Your task to perform on an android device: Open the SMS app Image 0: 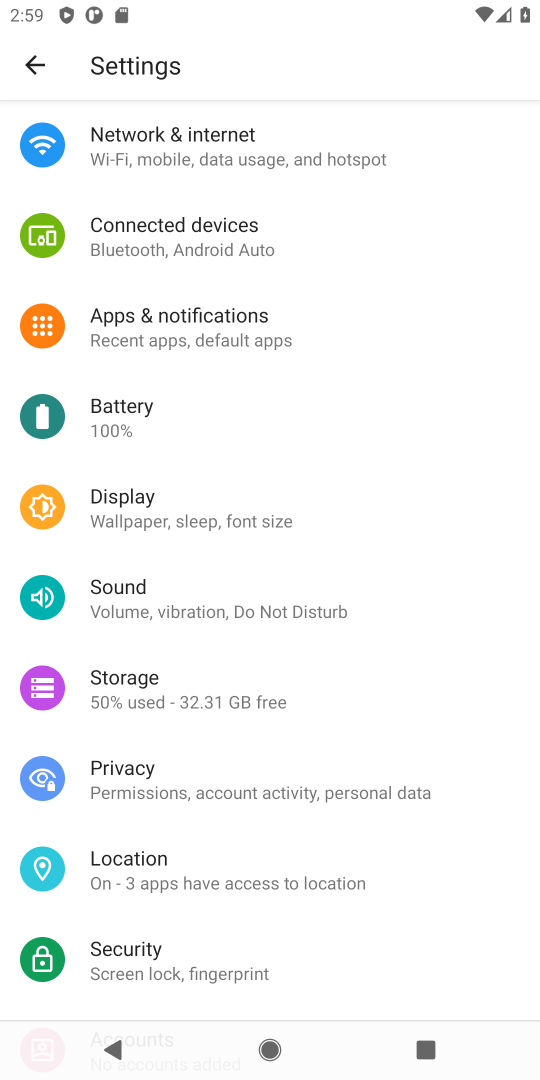
Step 0: press home button
Your task to perform on an android device: Open the SMS app Image 1: 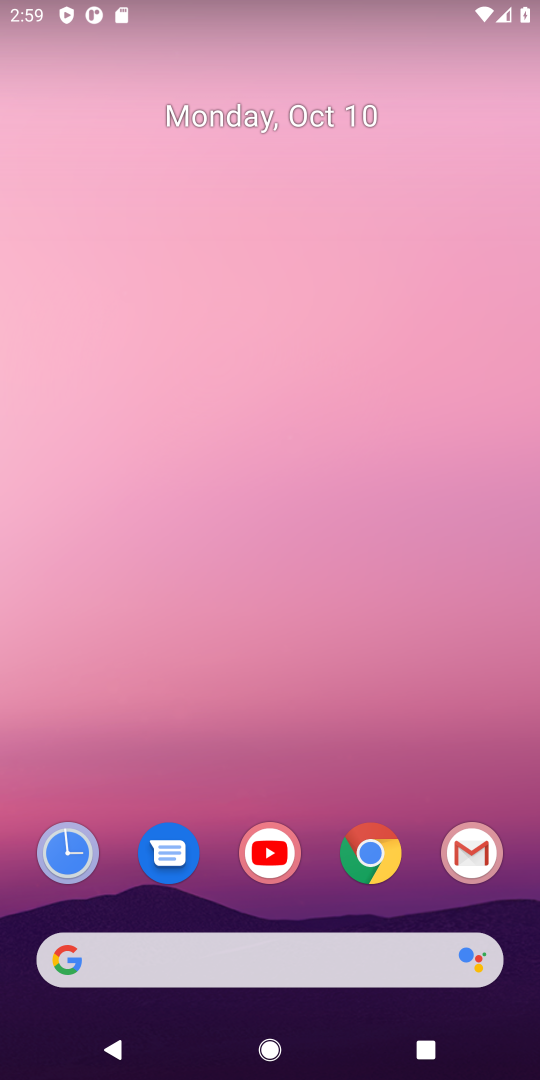
Step 1: click (370, 840)
Your task to perform on an android device: Open the SMS app Image 2: 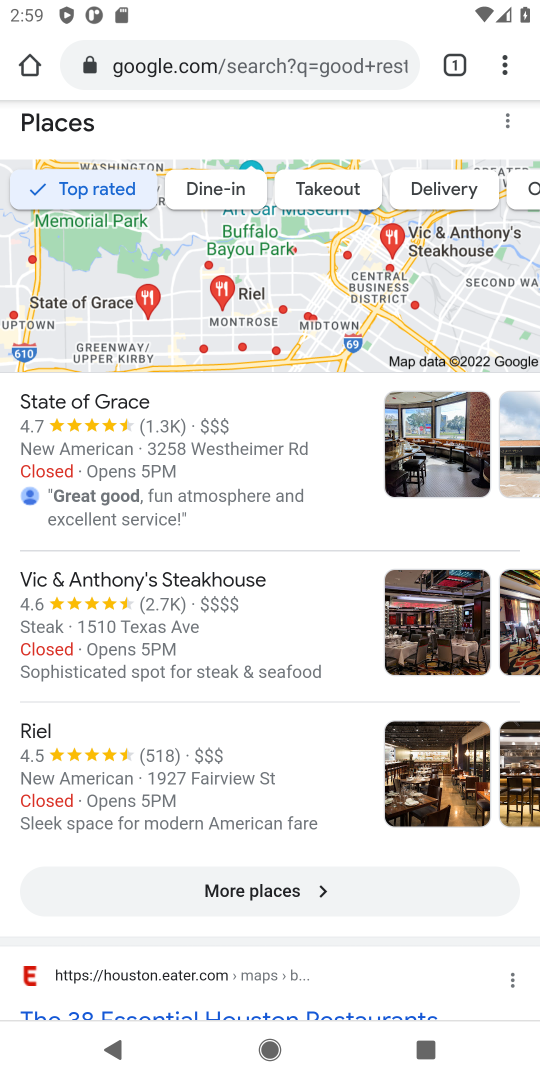
Step 2: press home button
Your task to perform on an android device: Open the SMS app Image 3: 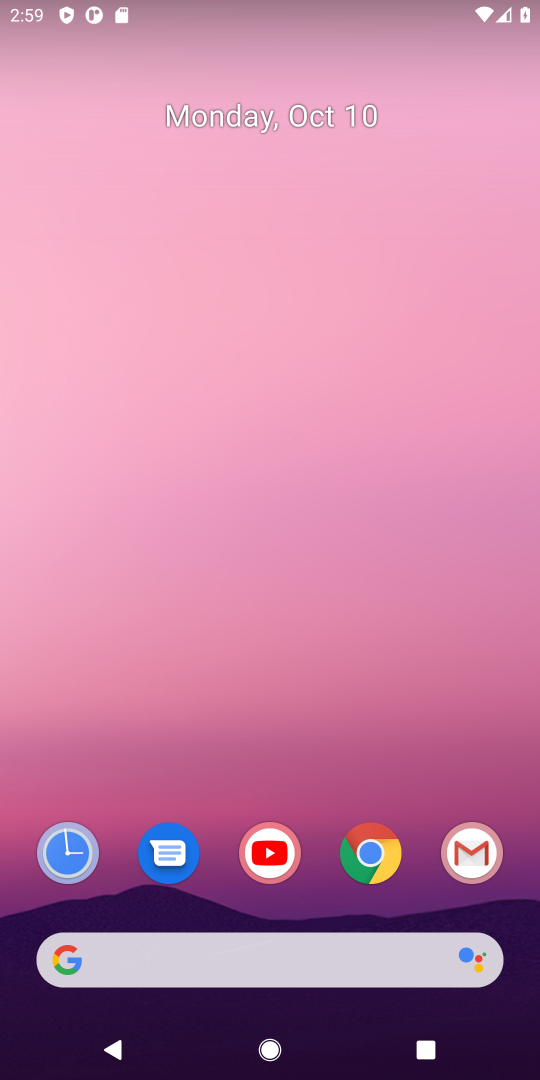
Step 3: drag from (444, 718) to (404, 208)
Your task to perform on an android device: Open the SMS app Image 4: 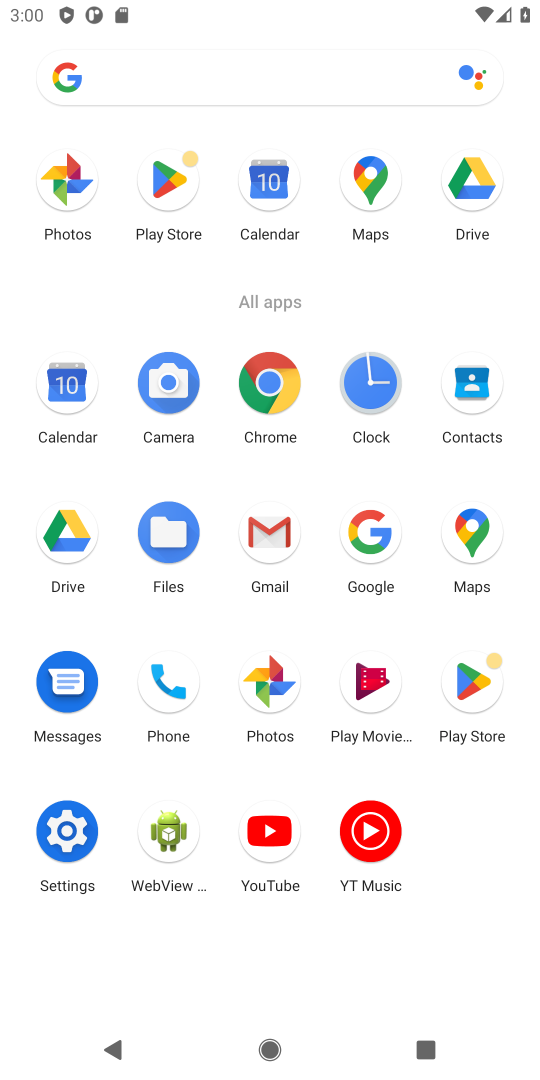
Step 4: click (75, 678)
Your task to perform on an android device: Open the SMS app Image 5: 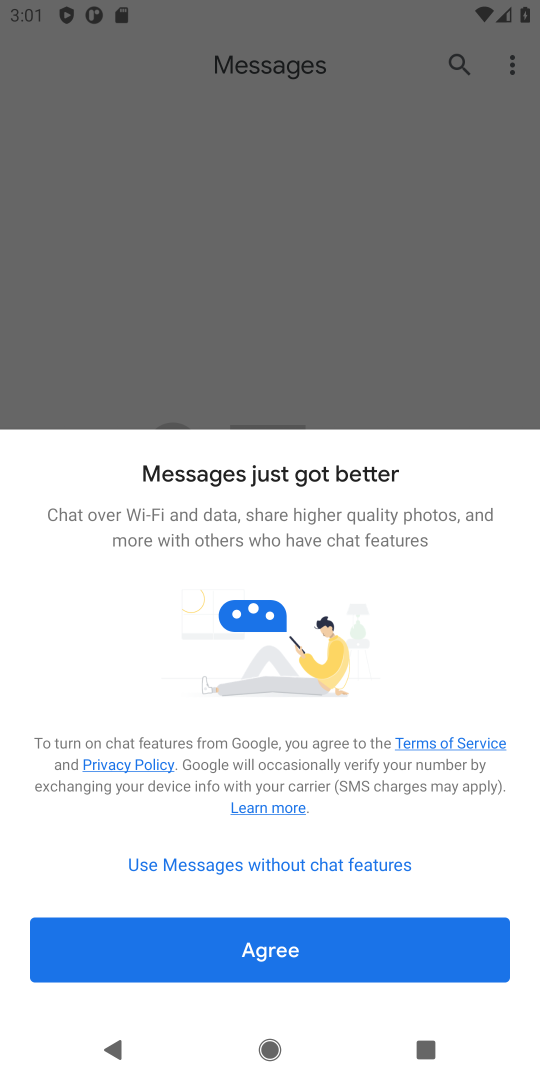
Step 5: click (312, 937)
Your task to perform on an android device: Open the SMS app Image 6: 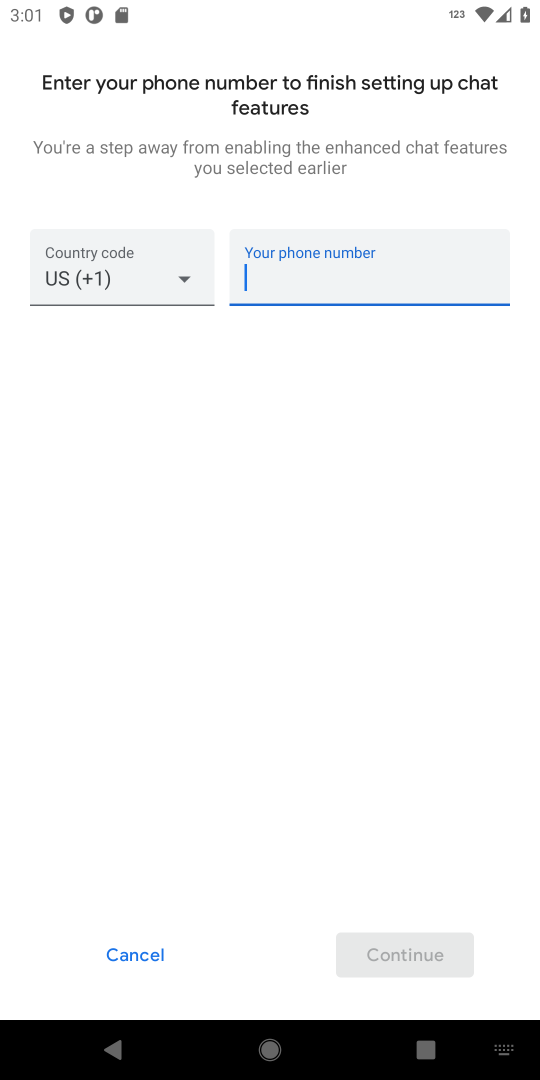
Step 6: task complete